Your task to perform on an android device: Open Youtube and go to "Your channel" Image 0: 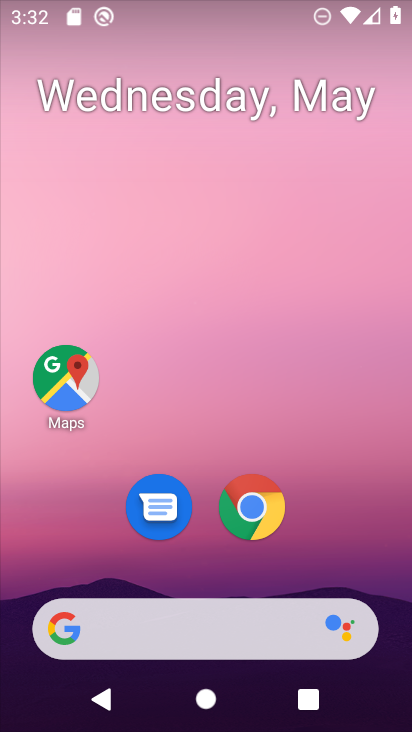
Step 0: drag from (223, 570) to (281, 104)
Your task to perform on an android device: Open Youtube and go to "Your channel" Image 1: 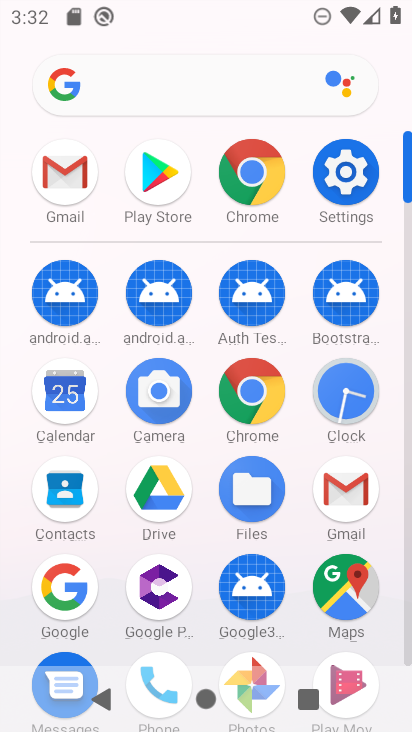
Step 1: drag from (220, 597) to (260, 236)
Your task to perform on an android device: Open Youtube and go to "Your channel" Image 2: 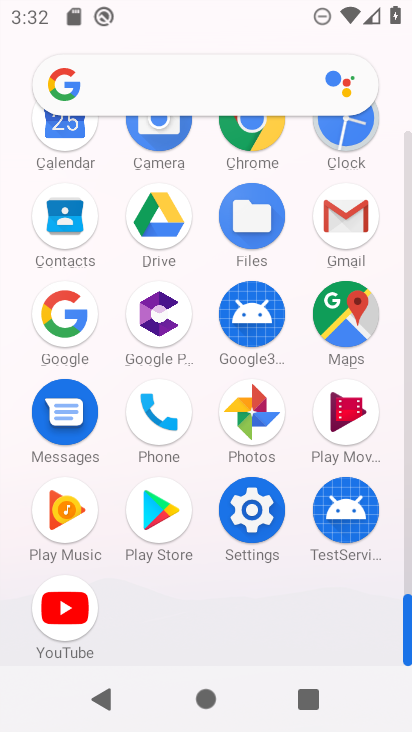
Step 2: click (64, 618)
Your task to perform on an android device: Open Youtube and go to "Your channel" Image 3: 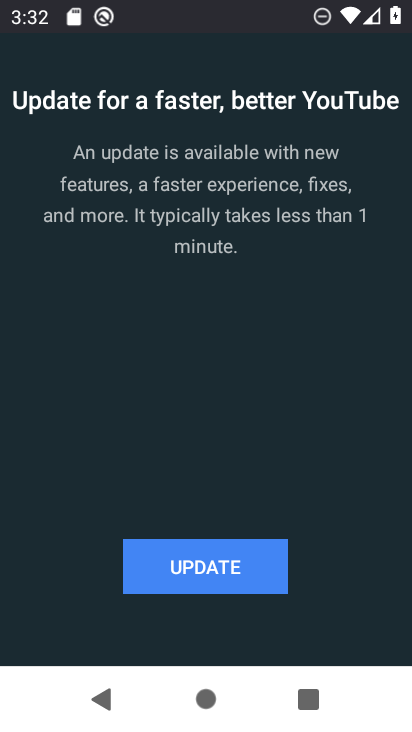
Step 3: click (210, 552)
Your task to perform on an android device: Open Youtube and go to "Your channel" Image 4: 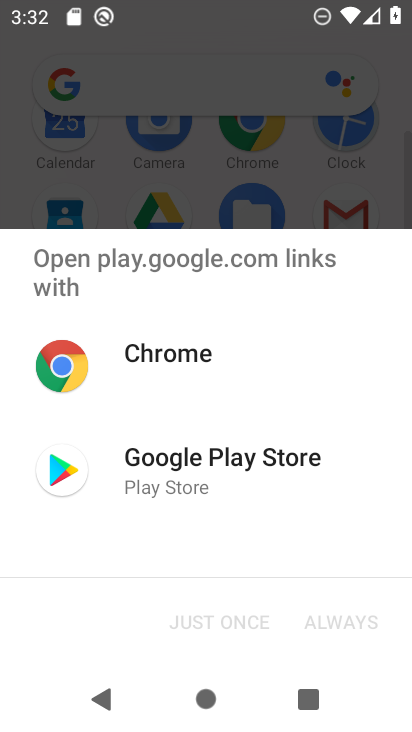
Step 4: click (213, 472)
Your task to perform on an android device: Open Youtube and go to "Your channel" Image 5: 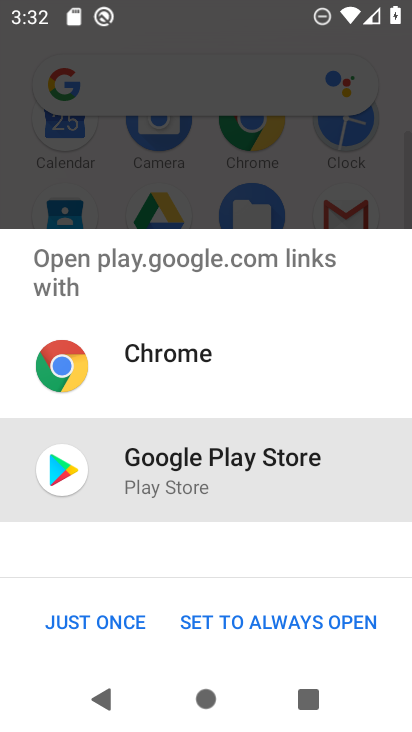
Step 5: click (119, 625)
Your task to perform on an android device: Open Youtube and go to "Your channel" Image 6: 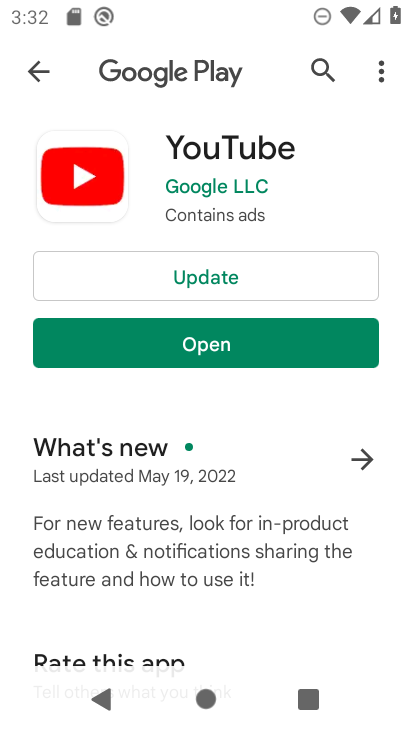
Step 6: click (244, 285)
Your task to perform on an android device: Open Youtube and go to "Your channel" Image 7: 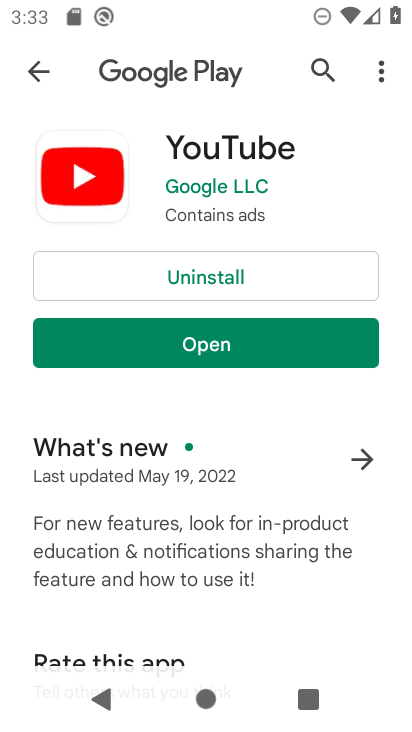
Step 7: click (284, 347)
Your task to perform on an android device: Open Youtube and go to "Your channel" Image 8: 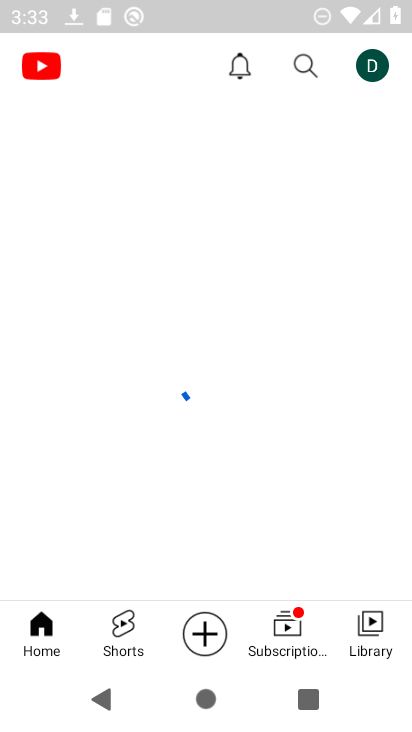
Step 8: click (381, 60)
Your task to perform on an android device: Open Youtube and go to "Your channel" Image 9: 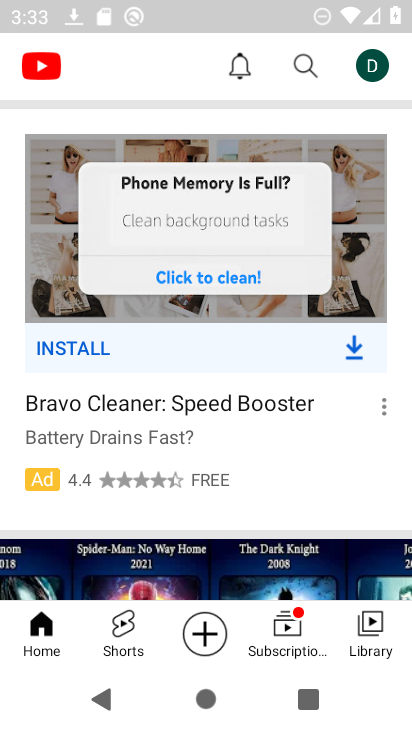
Step 9: click (385, 68)
Your task to perform on an android device: Open Youtube and go to "Your channel" Image 10: 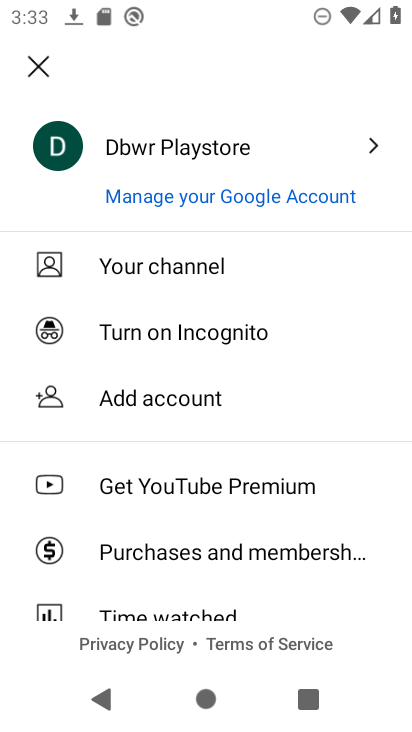
Step 10: click (207, 279)
Your task to perform on an android device: Open Youtube and go to "Your channel" Image 11: 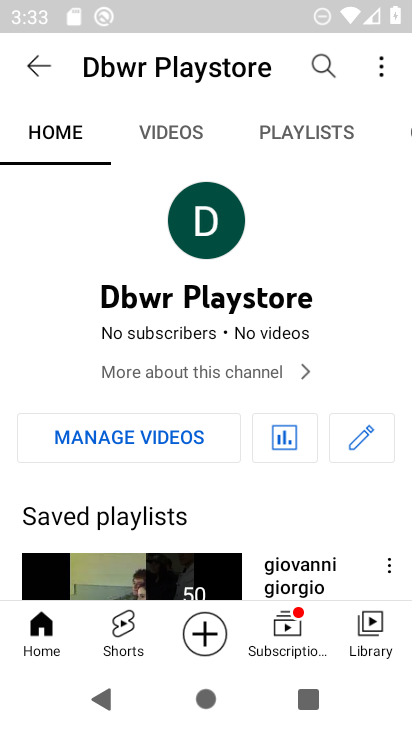
Step 11: task complete